Your task to perform on an android device: Go to Yahoo.com Image 0: 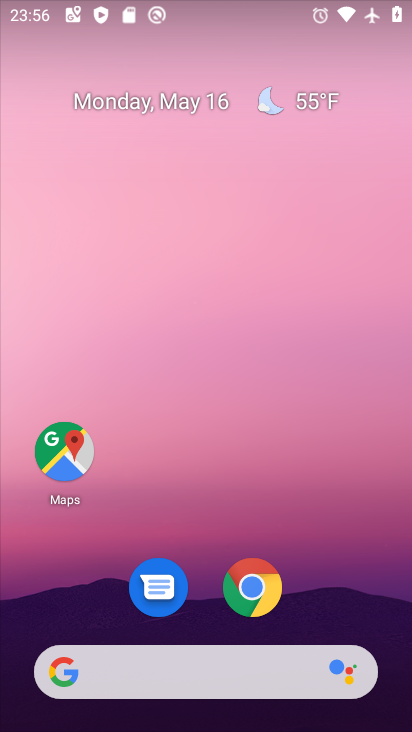
Step 0: drag from (289, 550) to (233, 76)
Your task to perform on an android device: Go to Yahoo.com Image 1: 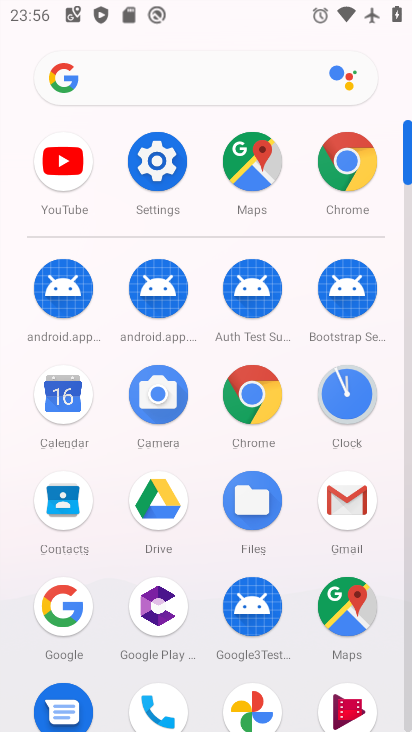
Step 1: click (248, 391)
Your task to perform on an android device: Go to Yahoo.com Image 2: 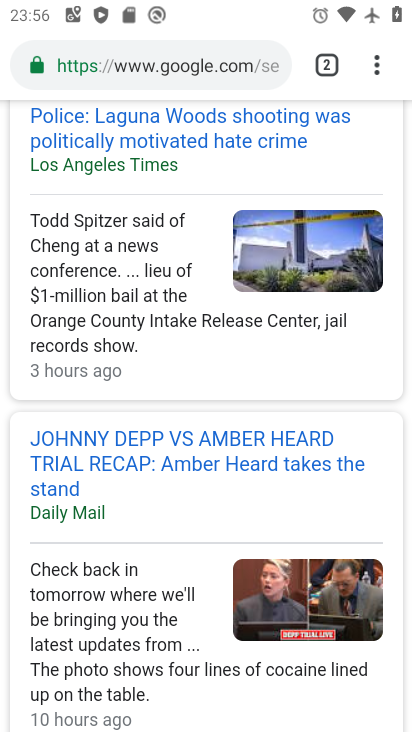
Step 2: click (176, 78)
Your task to perform on an android device: Go to Yahoo.com Image 3: 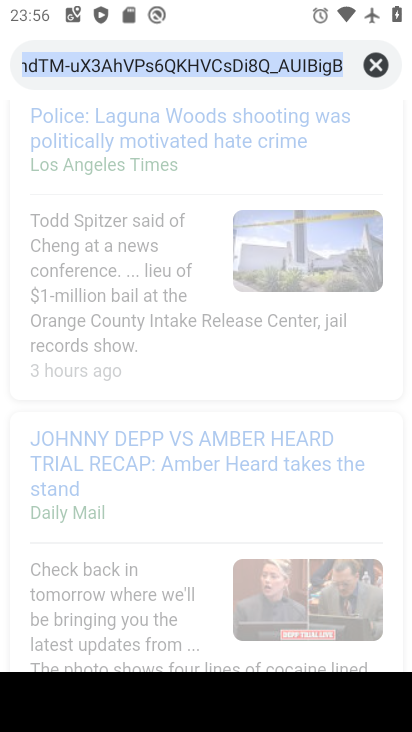
Step 3: click (372, 63)
Your task to perform on an android device: Go to Yahoo.com Image 4: 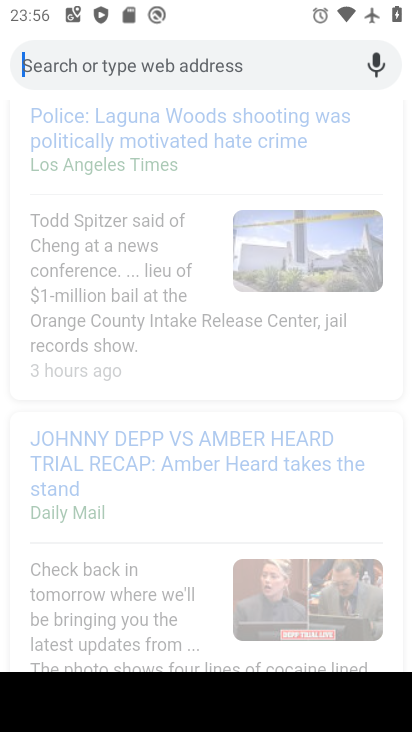
Step 4: type "Yahoo.com"
Your task to perform on an android device: Go to Yahoo.com Image 5: 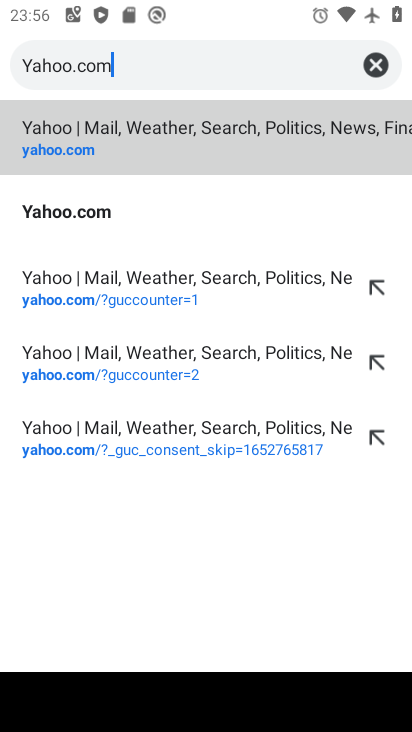
Step 5: type ""
Your task to perform on an android device: Go to Yahoo.com Image 6: 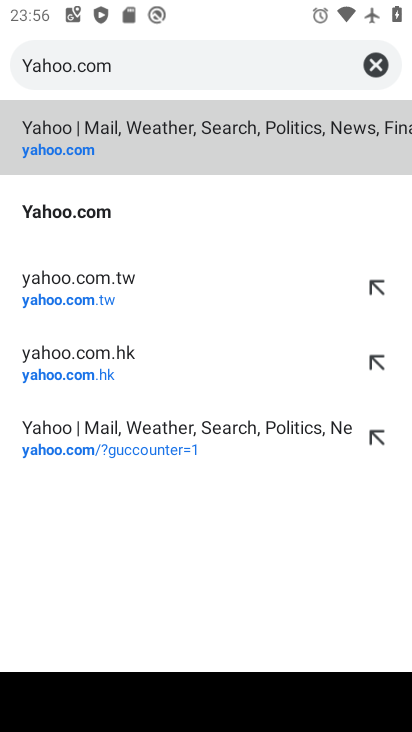
Step 6: click (121, 137)
Your task to perform on an android device: Go to Yahoo.com Image 7: 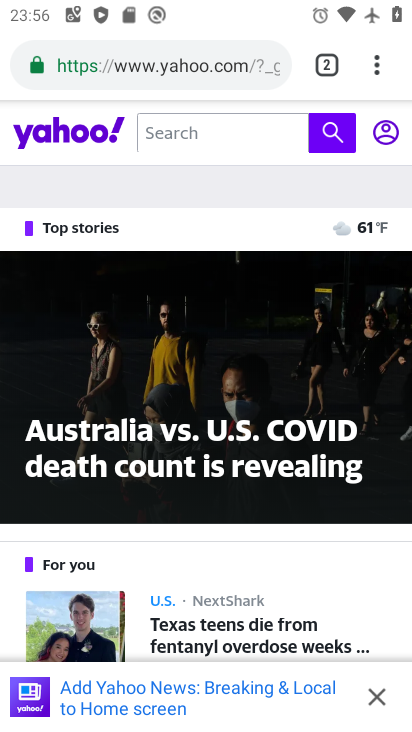
Step 7: task complete